Your task to perform on an android device: Open Google Chrome and click the shortcut for Amazon.com Image 0: 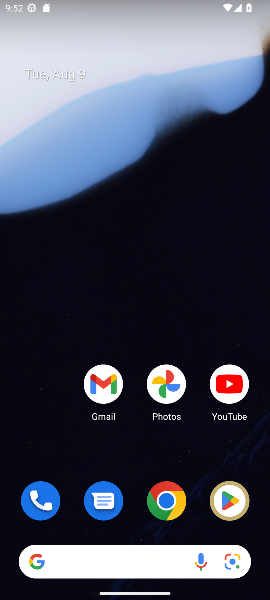
Step 0: click (162, 501)
Your task to perform on an android device: Open Google Chrome and click the shortcut for Amazon.com Image 1: 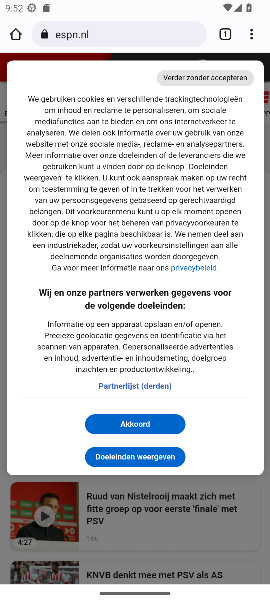
Step 1: click (68, 32)
Your task to perform on an android device: Open Google Chrome and click the shortcut for Amazon.com Image 2: 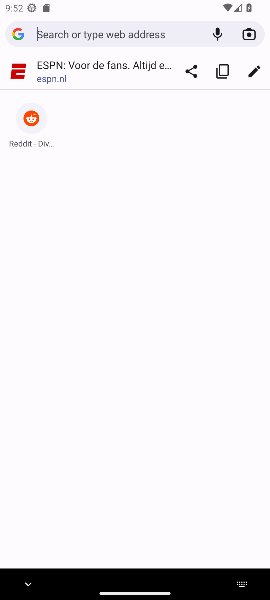
Step 2: type "www.amazon.com"
Your task to perform on an android device: Open Google Chrome and click the shortcut for Amazon.com Image 3: 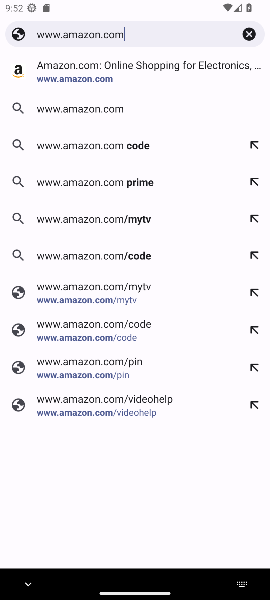
Step 3: click (113, 70)
Your task to perform on an android device: Open Google Chrome and click the shortcut for Amazon.com Image 4: 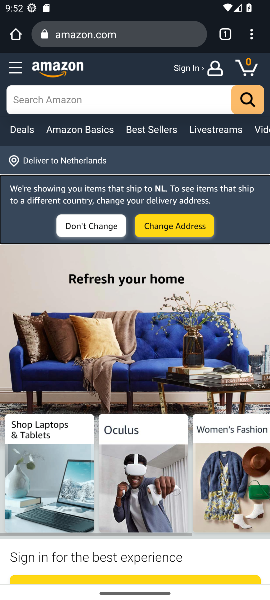
Step 4: task complete